Your task to perform on an android device: open wifi settings Image 0: 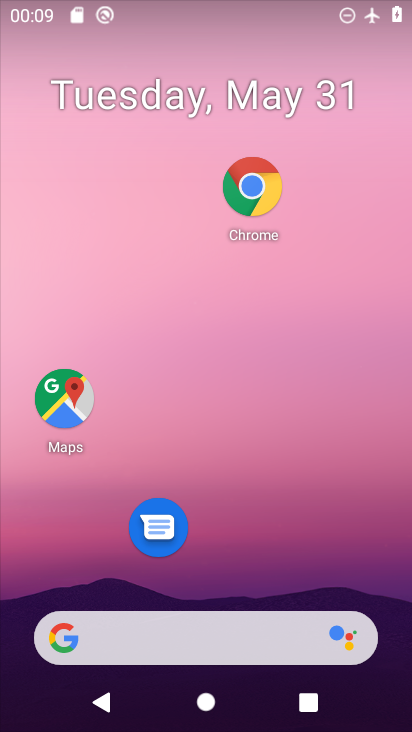
Step 0: drag from (258, 596) to (244, 273)
Your task to perform on an android device: open wifi settings Image 1: 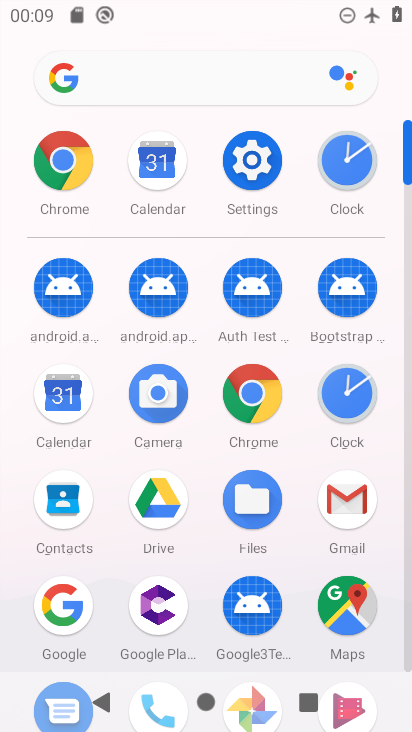
Step 1: click (256, 153)
Your task to perform on an android device: open wifi settings Image 2: 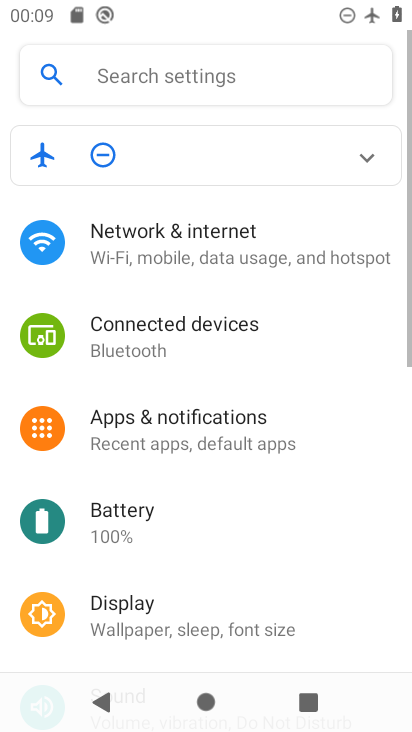
Step 2: click (196, 241)
Your task to perform on an android device: open wifi settings Image 3: 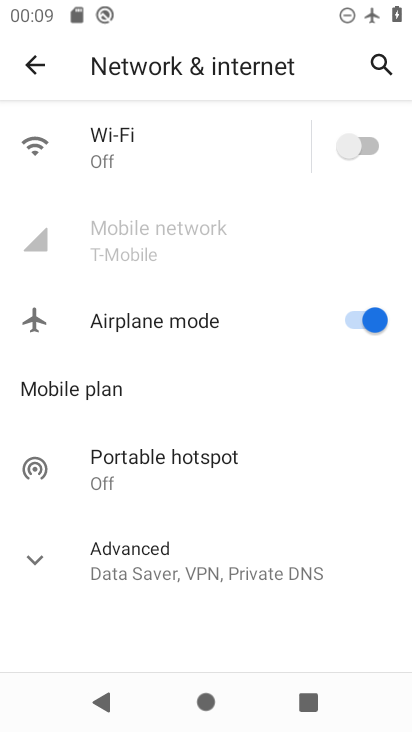
Step 3: task complete